Your task to perform on an android device: turn off data saver in the chrome app Image 0: 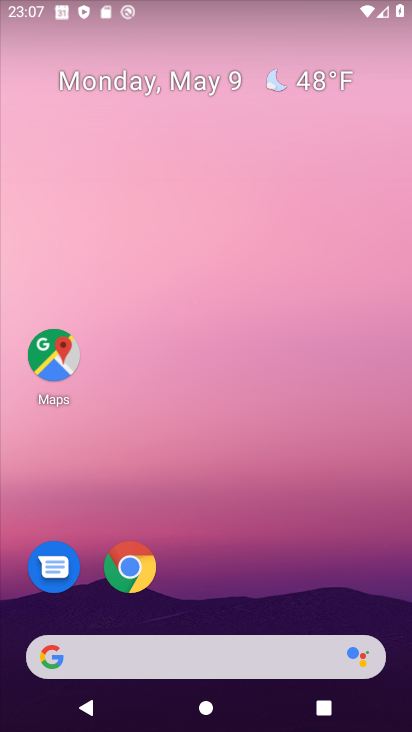
Step 0: click (130, 567)
Your task to perform on an android device: turn off data saver in the chrome app Image 1: 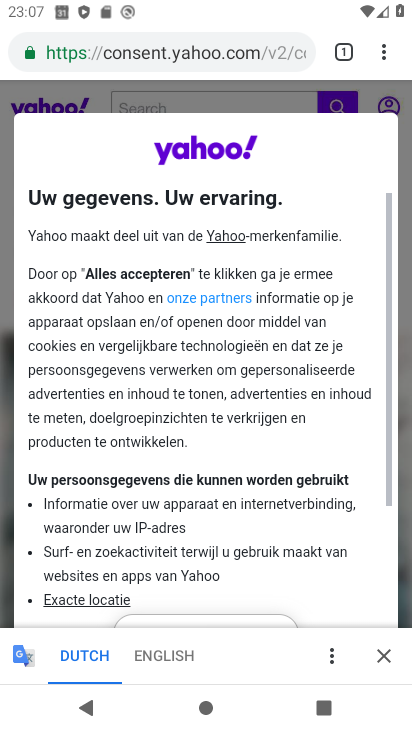
Step 1: click (385, 53)
Your task to perform on an android device: turn off data saver in the chrome app Image 2: 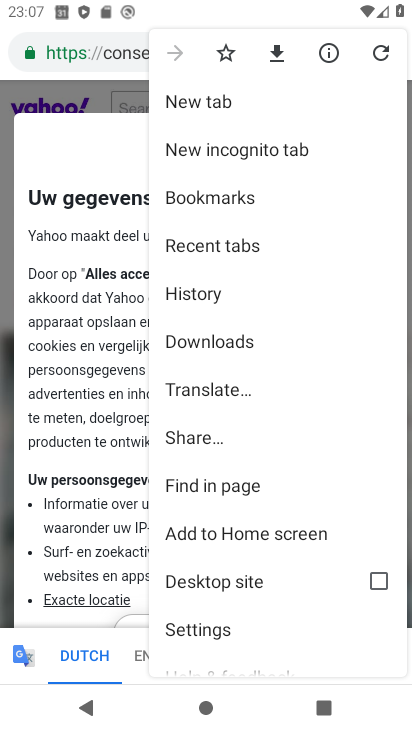
Step 2: click (206, 633)
Your task to perform on an android device: turn off data saver in the chrome app Image 3: 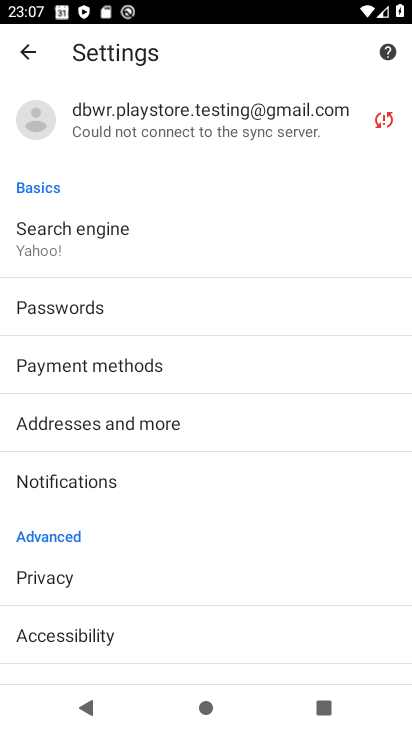
Step 3: drag from (188, 535) to (219, 381)
Your task to perform on an android device: turn off data saver in the chrome app Image 4: 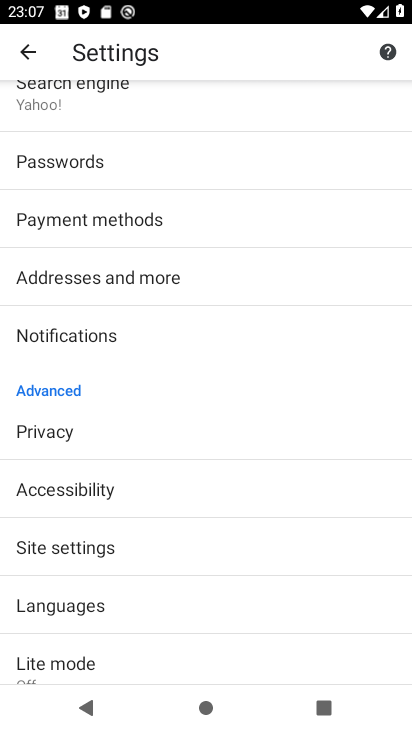
Step 4: drag from (146, 498) to (192, 419)
Your task to perform on an android device: turn off data saver in the chrome app Image 5: 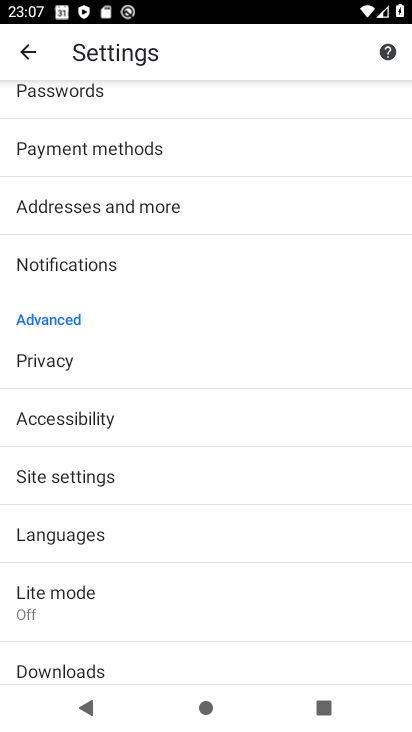
Step 5: drag from (143, 590) to (193, 483)
Your task to perform on an android device: turn off data saver in the chrome app Image 6: 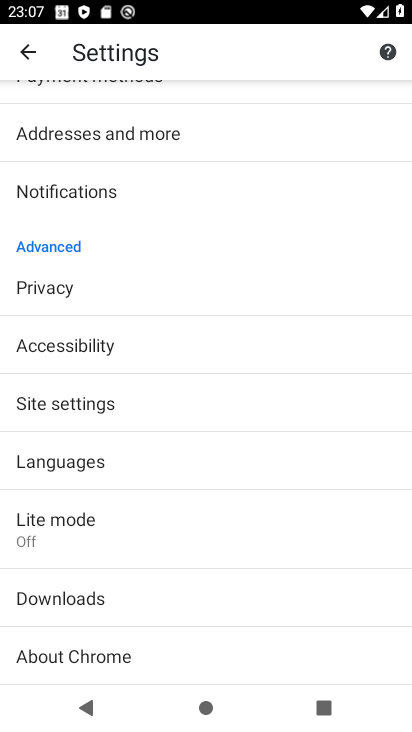
Step 6: click (97, 517)
Your task to perform on an android device: turn off data saver in the chrome app Image 7: 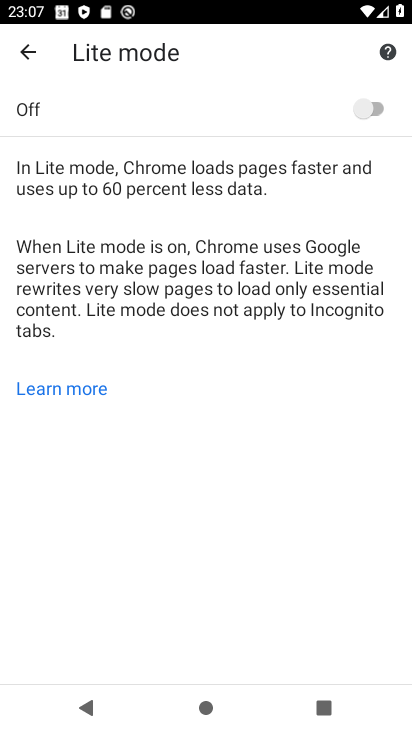
Step 7: task complete